Your task to perform on an android device: open a new tab in the chrome app Image 0: 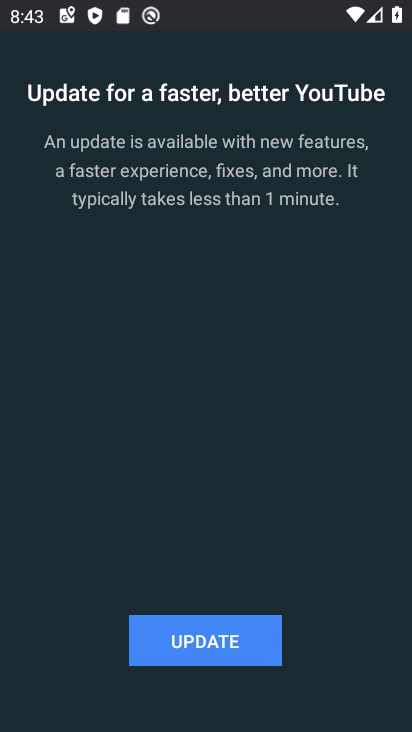
Step 0: press home button
Your task to perform on an android device: open a new tab in the chrome app Image 1: 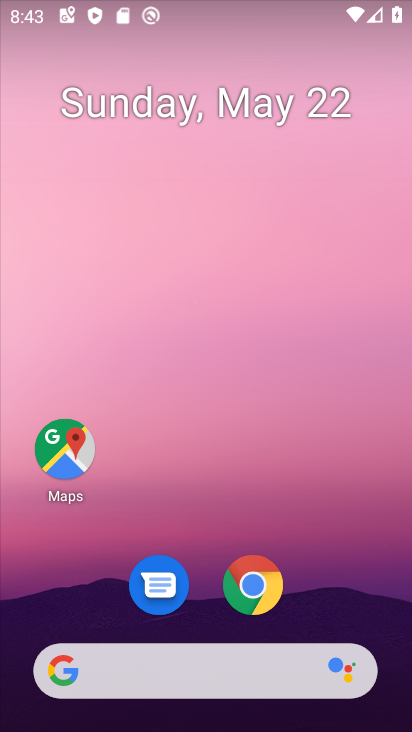
Step 1: click (252, 581)
Your task to perform on an android device: open a new tab in the chrome app Image 2: 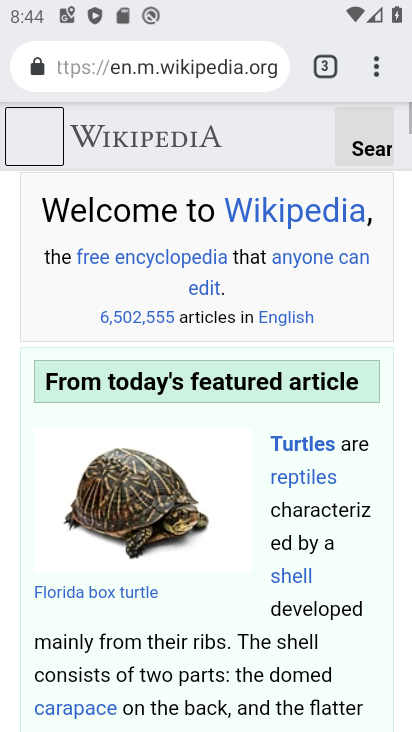
Step 2: click (370, 63)
Your task to perform on an android device: open a new tab in the chrome app Image 3: 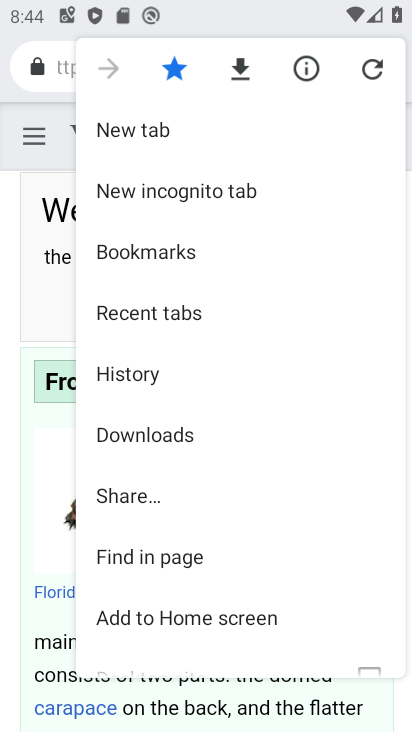
Step 3: click (293, 122)
Your task to perform on an android device: open a new tab in the chrome app Image 4: 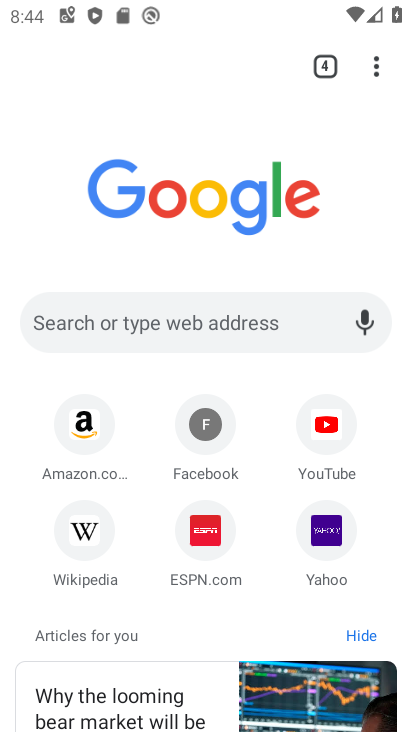
Step 4: task complete